Your task to perform on an android device: Open Google Maps Image 0: 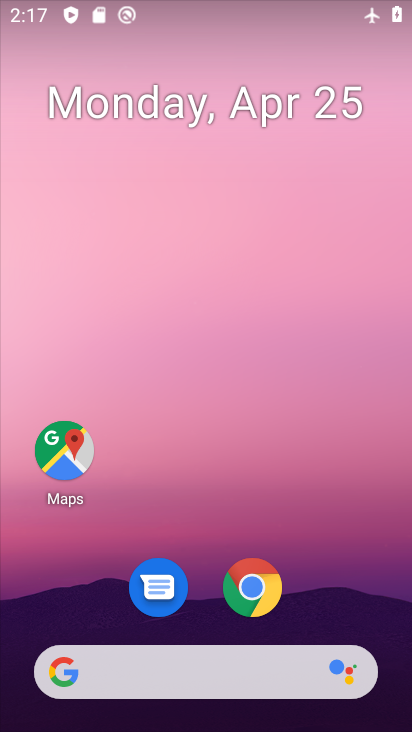
Step 0: drag from (347, 635) to (277, 149)
Your task to perform on an android device: Open Google Maps Image 1: 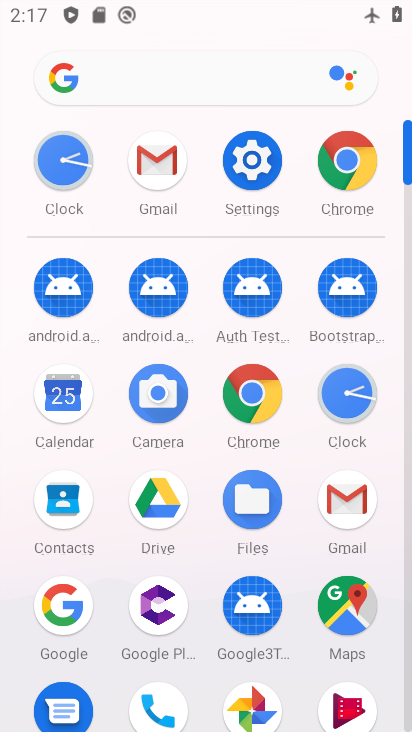
Step 1: click (369, 600)
Your task to perform on an android device: Open Google Maps Image 2: 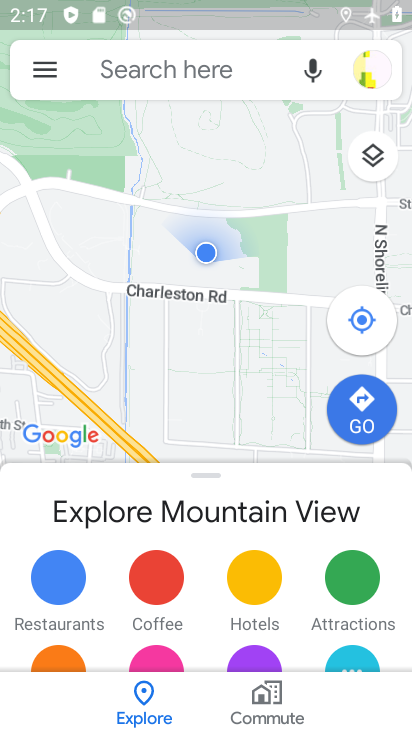
Step 2: task complete